Your task to perform on an android device: Open network settings Image 0: 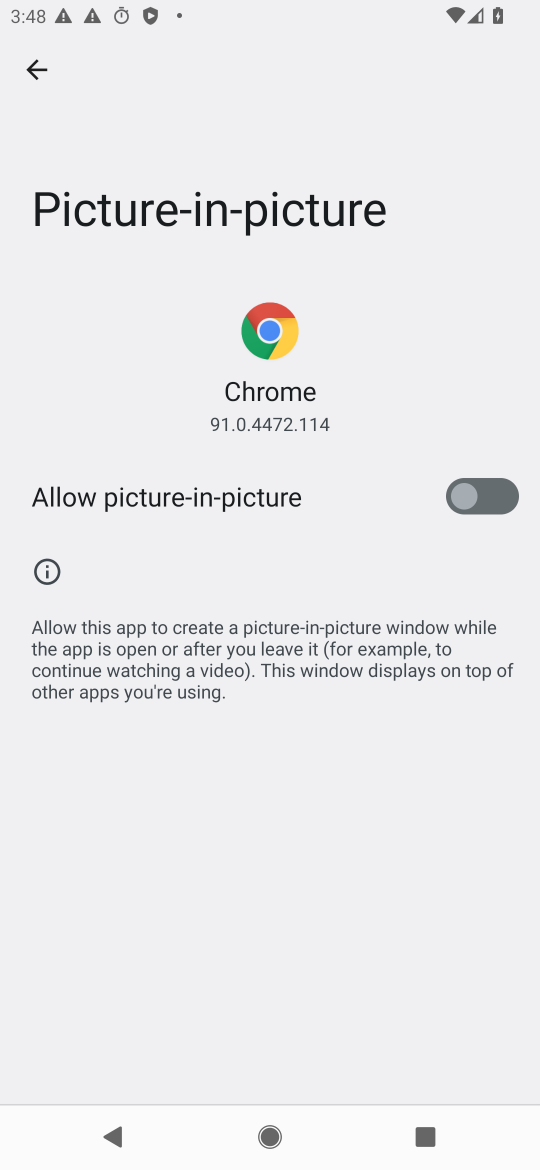
Step 0: press home button
Your task to perform on an android device: Open network settings Image 1: 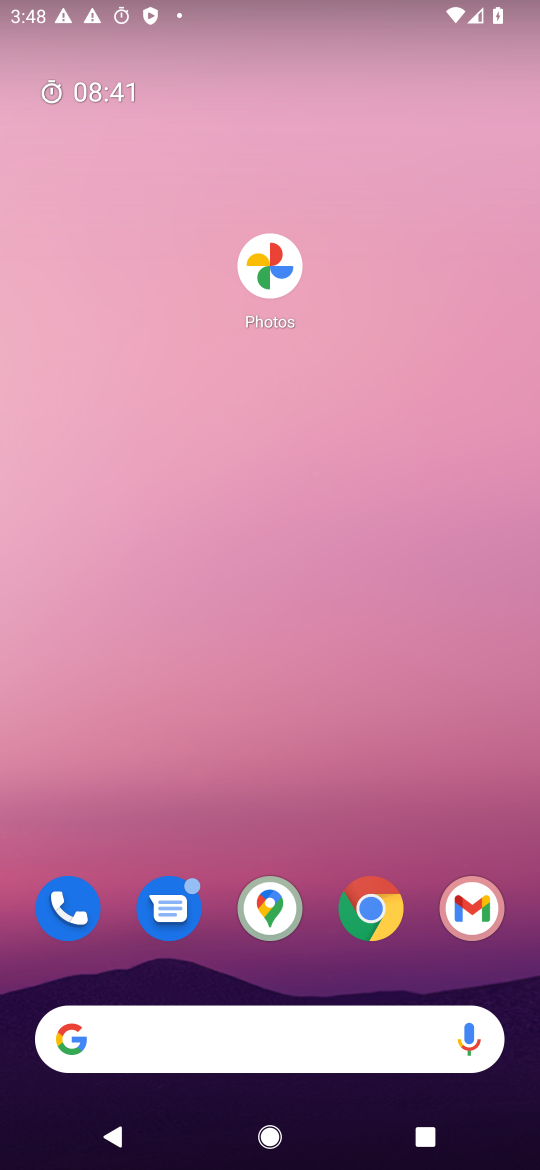
Step 1: drag from (234, 940) to (231, 102)
Your task to perform on an android device: Open network settings Image 2: 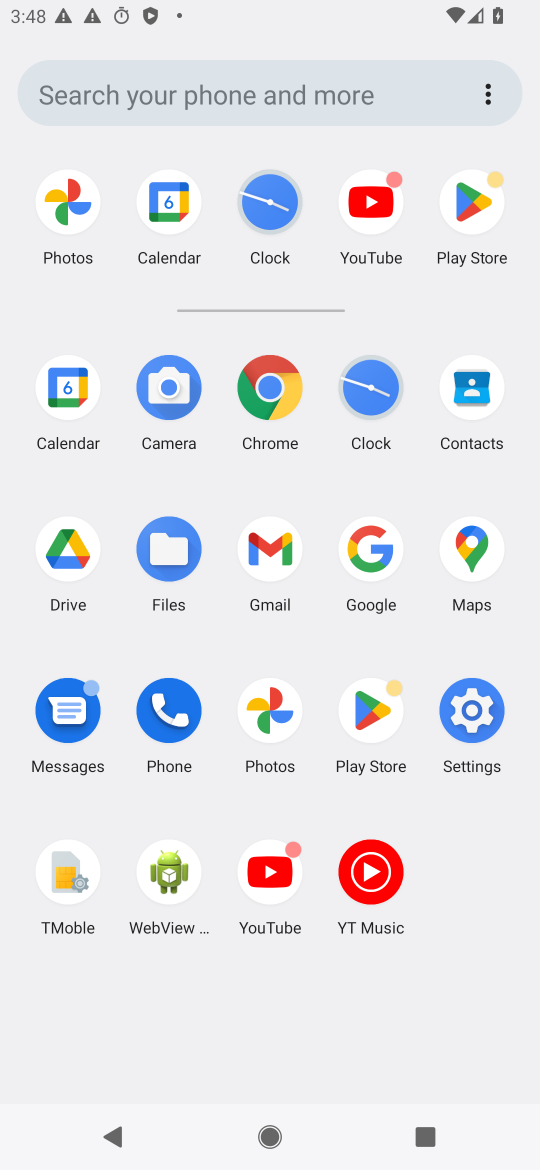
Step 2: click (493, 715)
Your task to perform on an android device: Open network settings Image 3: 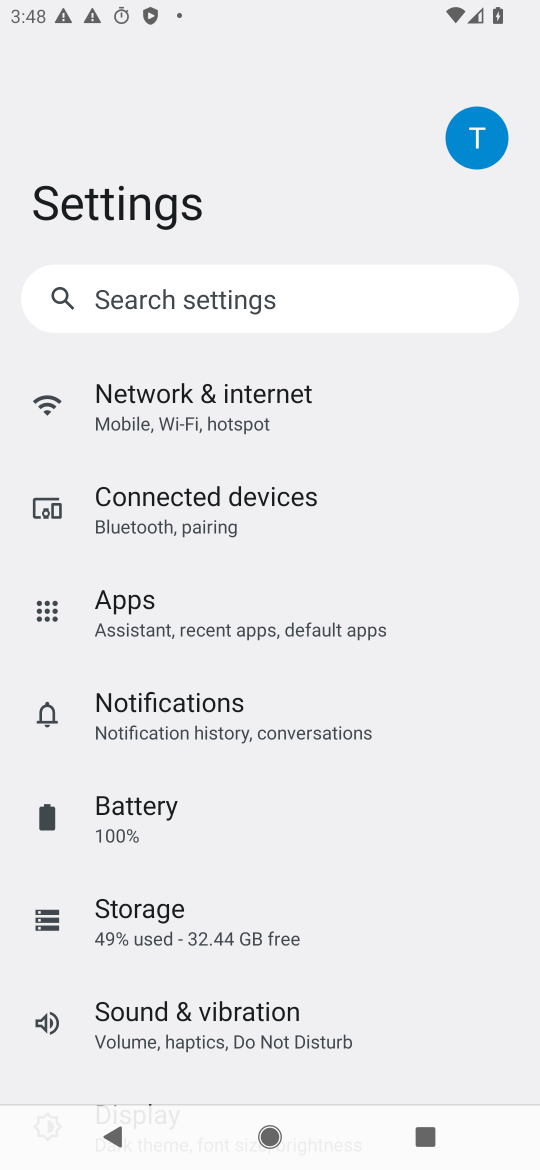
Step 3: click (196, 714)
Your task to perform on an android device: Open network settings Image 4: 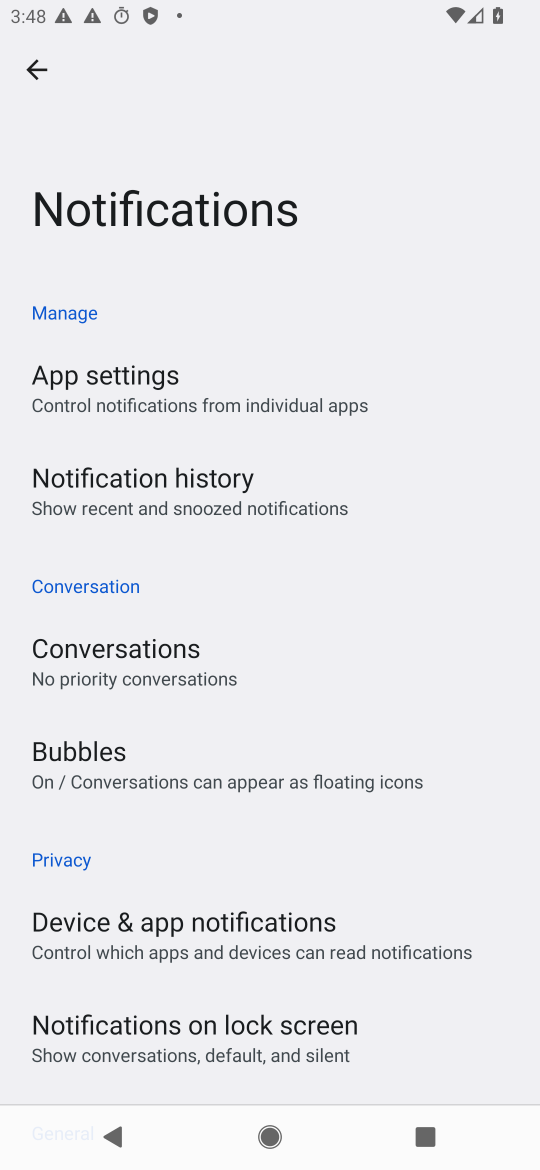
Step 4: click (38, 79)
Your task to perform on an android device: Open network settings Image 5: 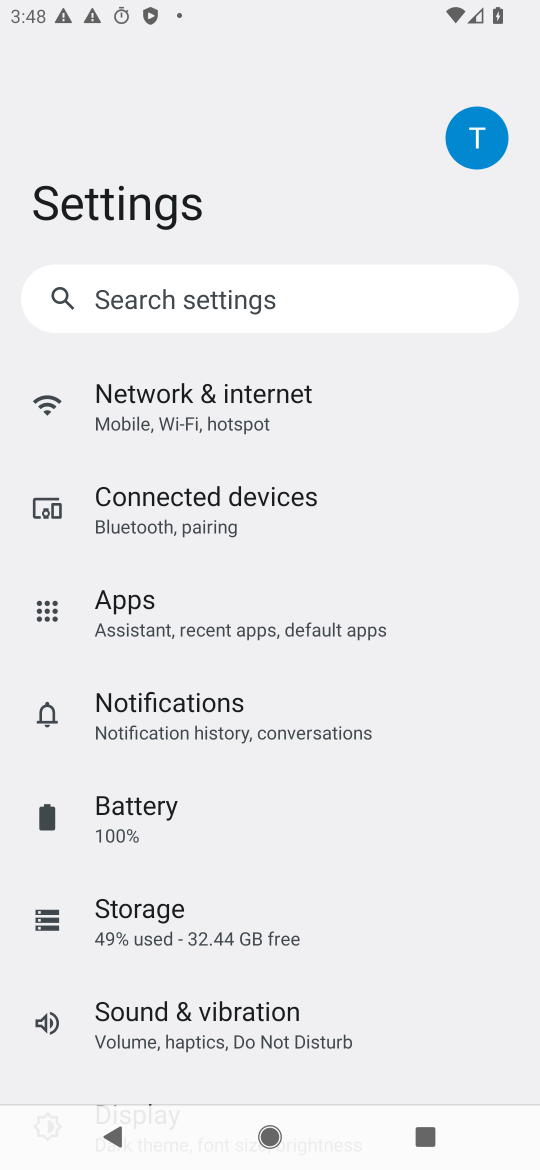
Step 5: click (228, 415)
Your task to perform on an android device: Open network settings Image 6: 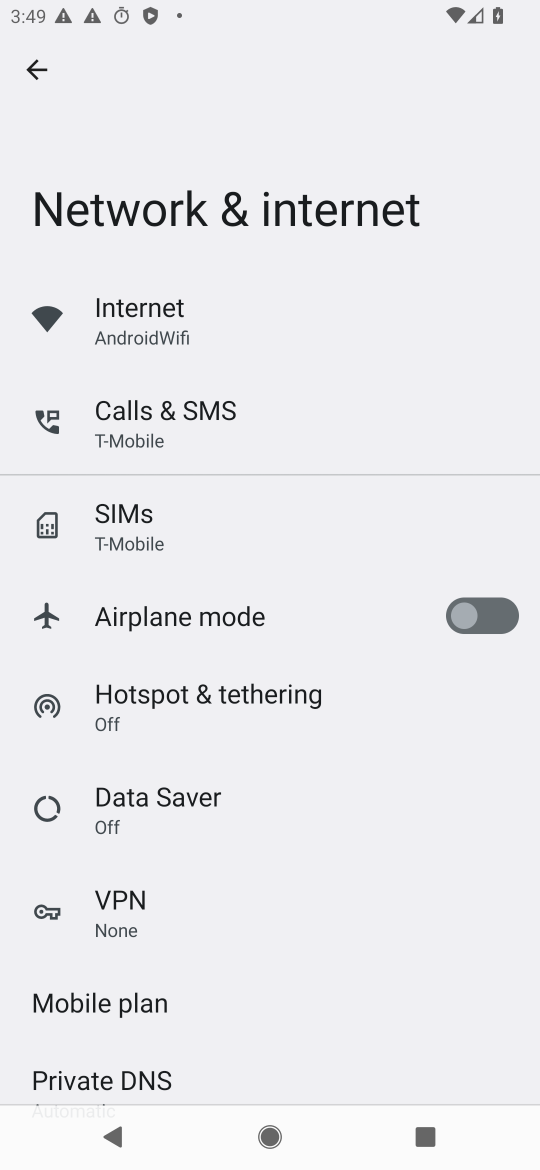
Step 6: click (162, 328)
Your task to perform on an android device: Open network settings Image 7: 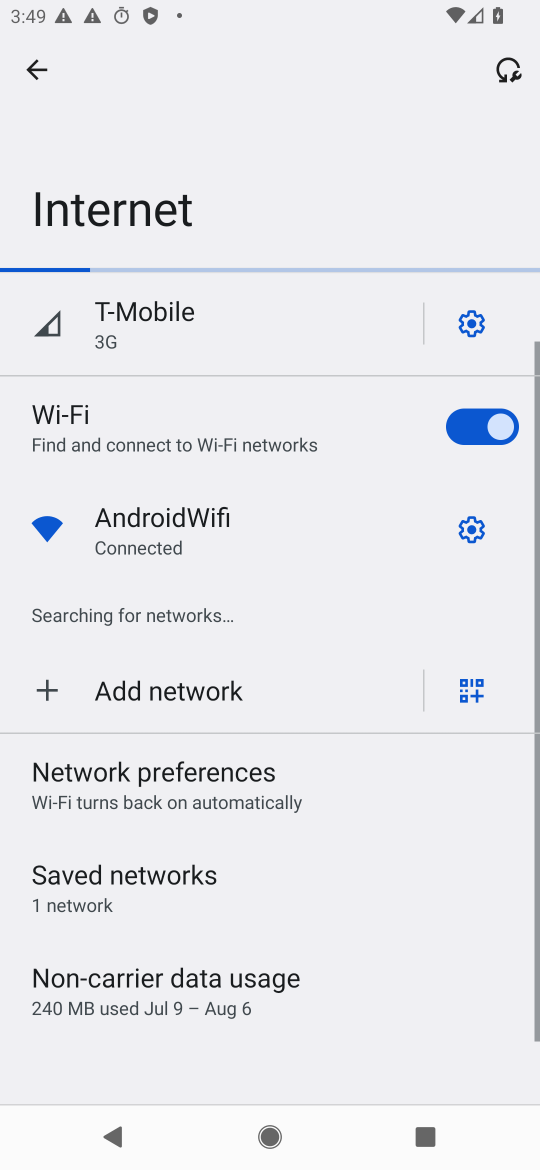
Step 7: click (467, 329)
Your task to perform on an android device: Open network settings Image 8: 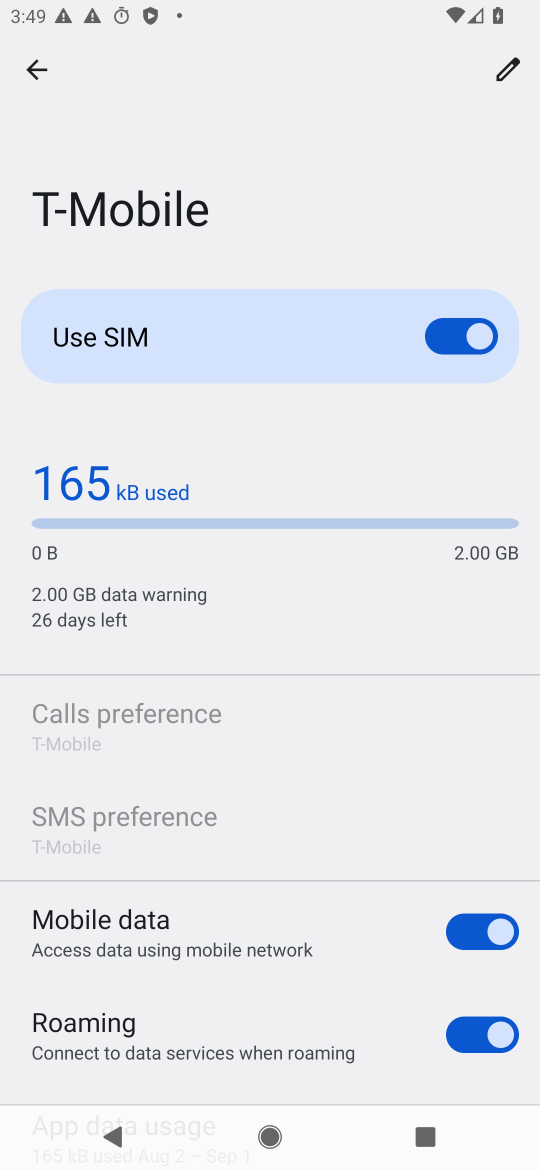
Step 8: task complete